Your task to perform on an android device: toggle pop-ups in chrome Image 0: 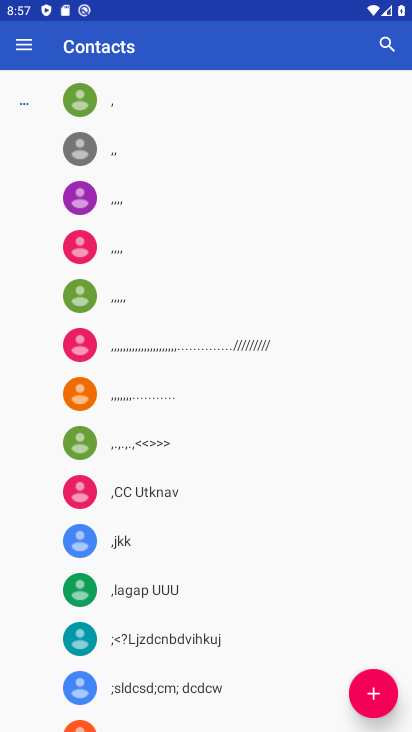
Step 0: press home button
Your task to perform on an android device: toggle pop-ups in chrome Image 1: 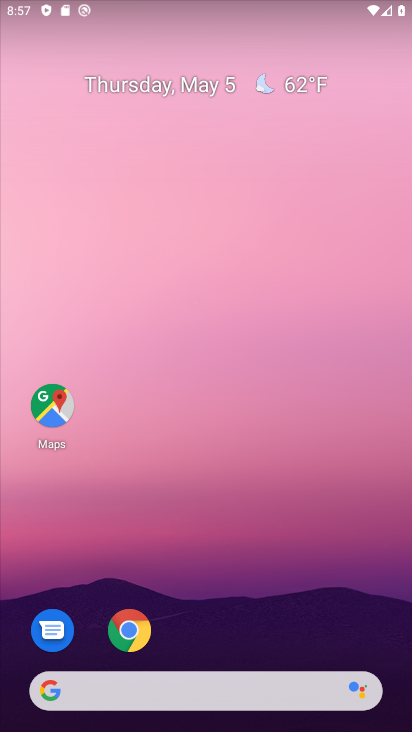
Step 1: drag from (220, 657) to (202, 141)
Your task to perform on an android device: toggle pop-ups in chrome Image 2: 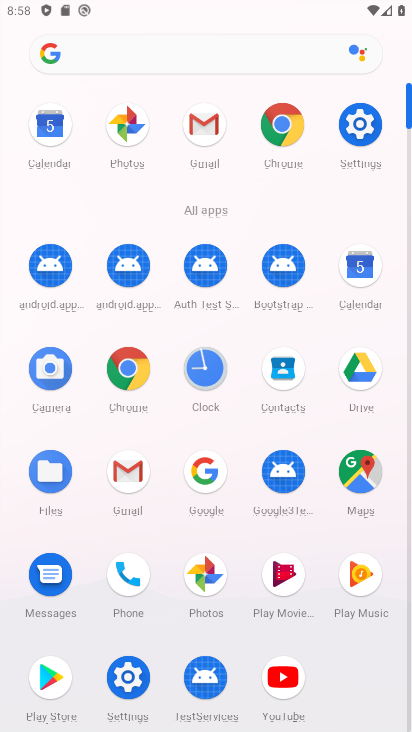
Step 2: click (129, 365)
Your task to perform on an android device: toggle pop-ups in chrome Image 3: 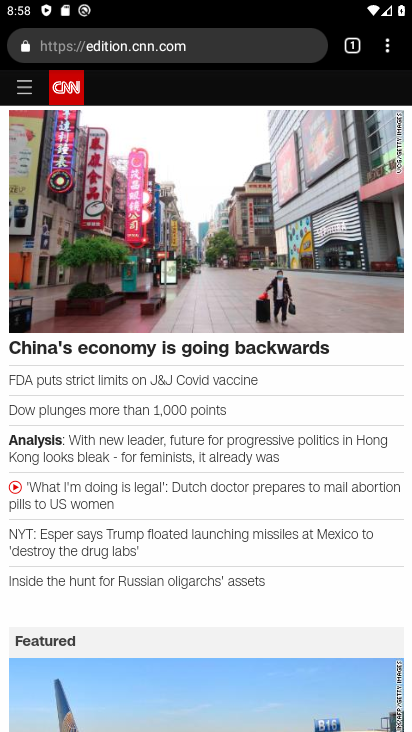
Step 3: press back button
Your task to perform on an android device: toggle pop-ups in chrome Image 4: 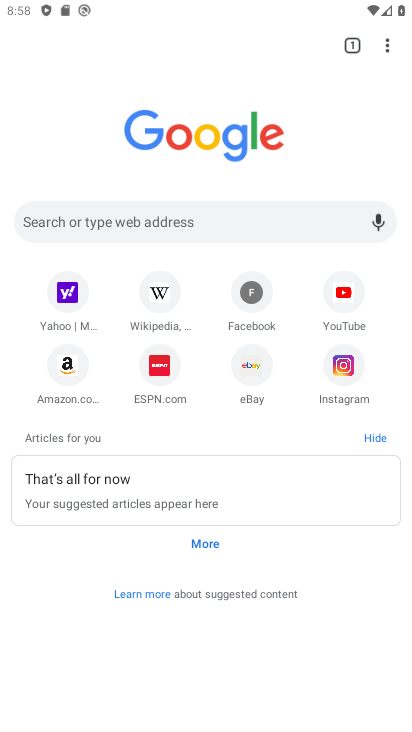
Step 4: click (385, 43)
Your task to perform on an android device: toggle pop-ups in chrome Image 5: 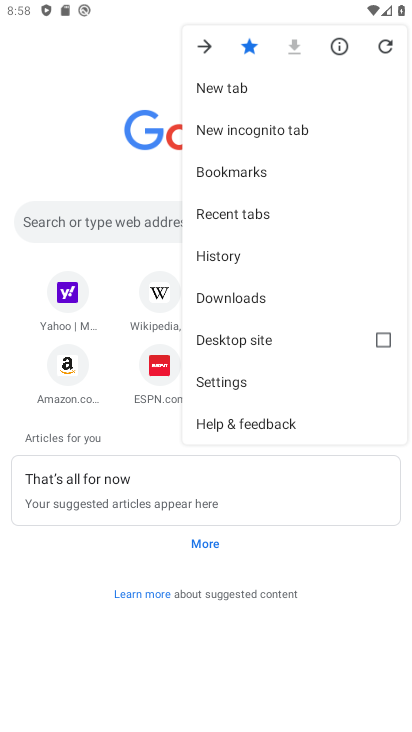
Step 5: click (250, 383)
Your task to perform on an android device: toggle pop-ups in chrome Image 6: 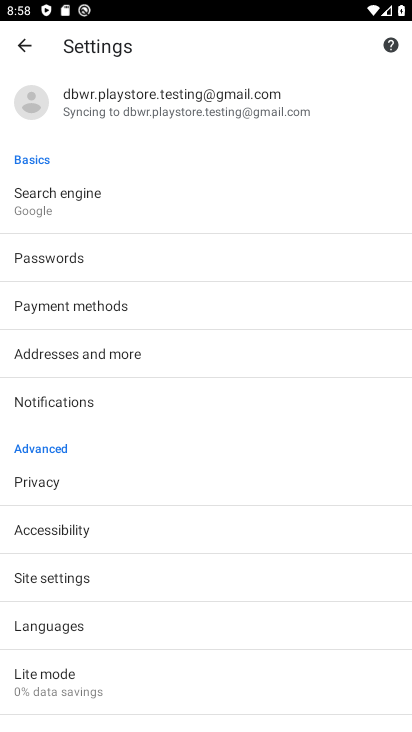
Step 6: click (99, 578)
Your task to perform on an android device: toggle pop-ups in chrome Image 7: 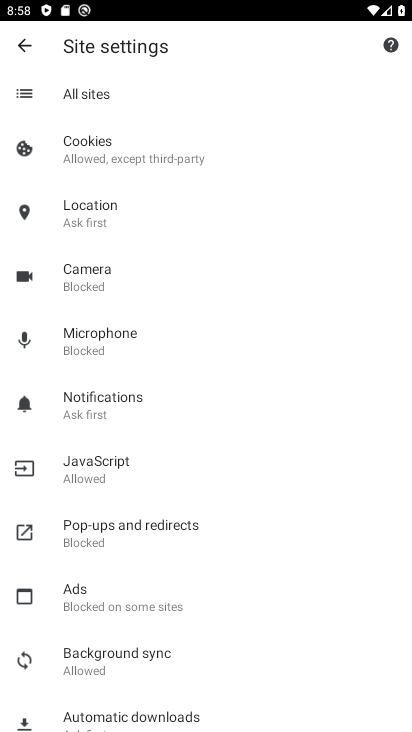
Step 7: click (128, 534)
Your task to perform on an android device: toggle pop-ups in chrome Image 8: 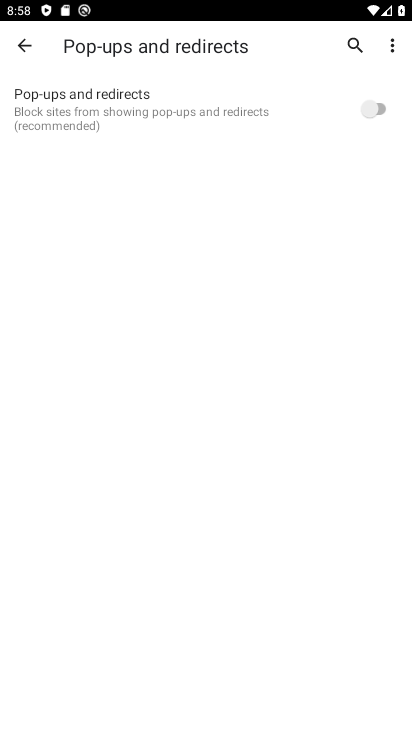
Step 8: click (380, 104)
Your task to perform on an android device: toggle pop-ups in chrome Image 9: 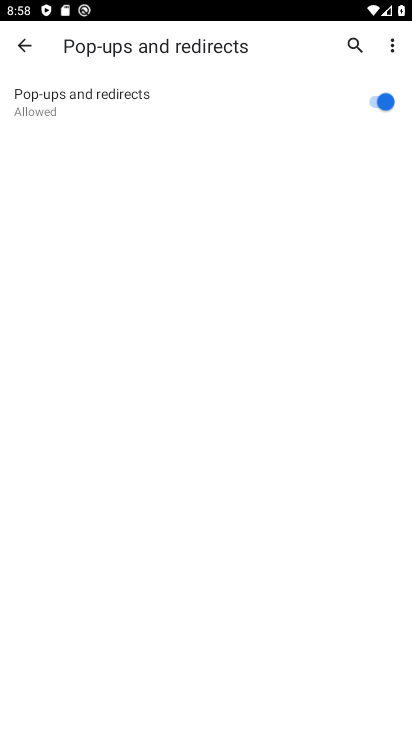
Step 9: task complete